Your task to perform on an android device: Go to settings Image 0: 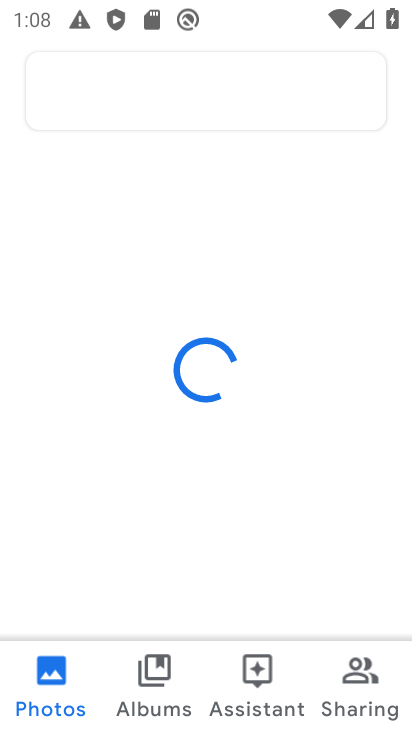
Step 0: press back button
Your task to perform on an android device: Go to settings Image 1: 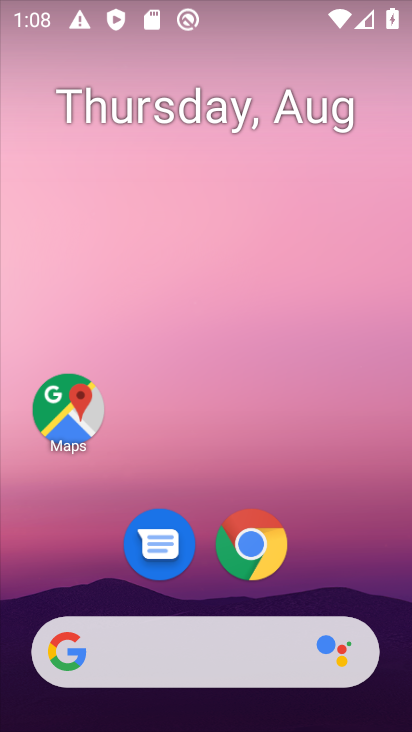
Step 1: drag from (205, 630) to (194, 19)
Your task to perform on an android device: Go to settings Image 2: 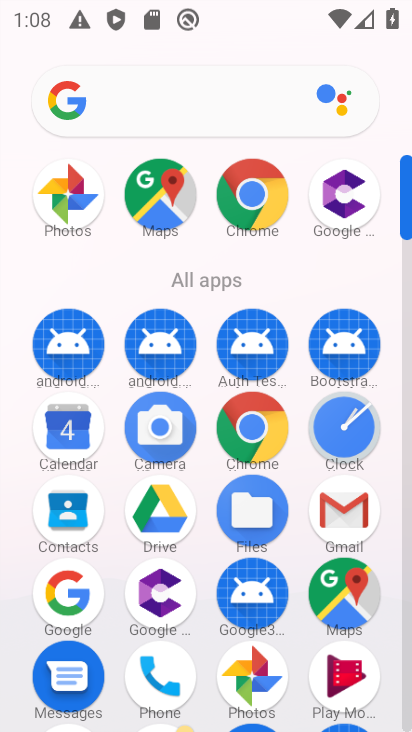
Step 2: drag from (113, 652) to (111, 36)
Your task to perform on an android device: Go to settings Image 3: 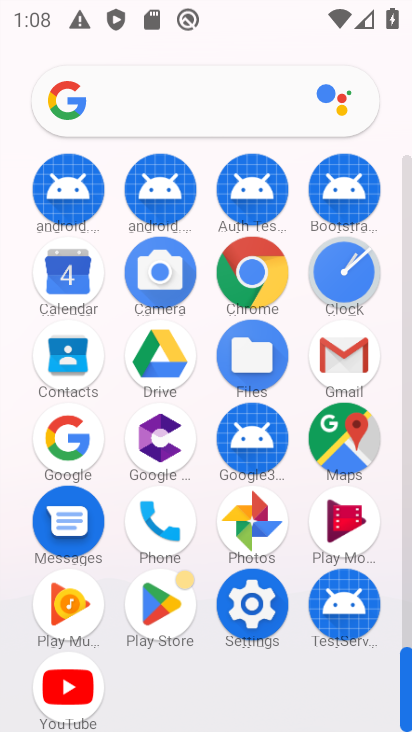
Step 3: click (278, 600)
Your task to perform on an android device: Go to settings Image 4: 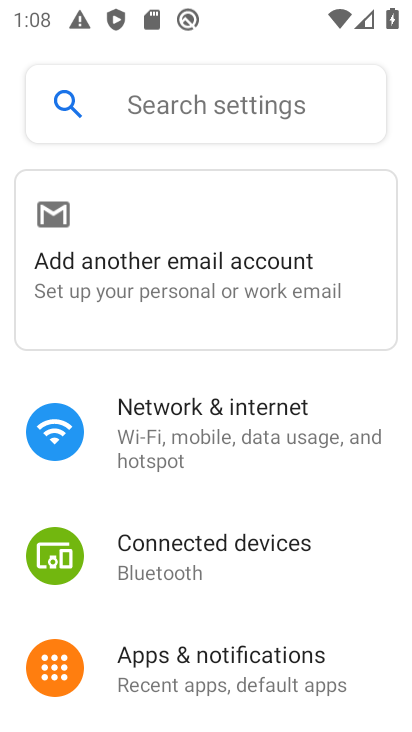
Step 4: task complete